Your task to perform on an android device: Go to Amazon Image 0: 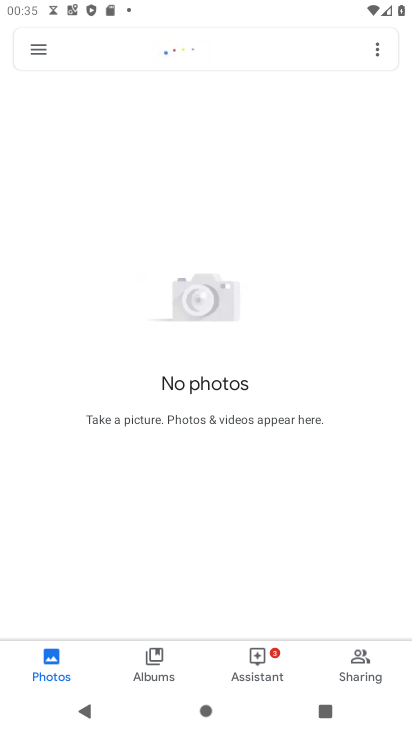
Step 0: press home button
Your task to perform on an android device: Go to Amazon Image 1: 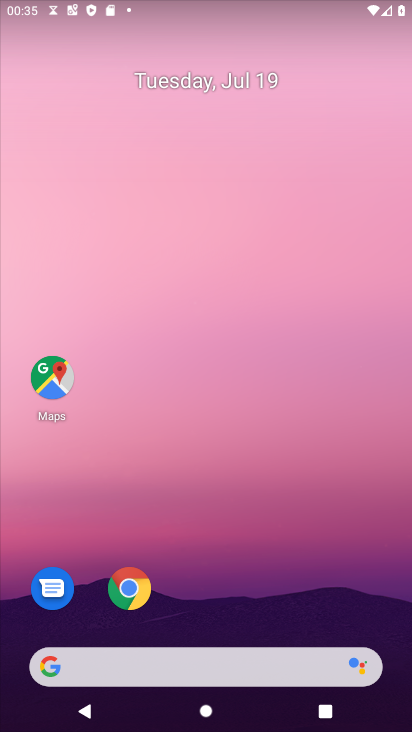
Step 1: click (120, 594)
Your task to perform on an android device: Go to Amazon Image 2: 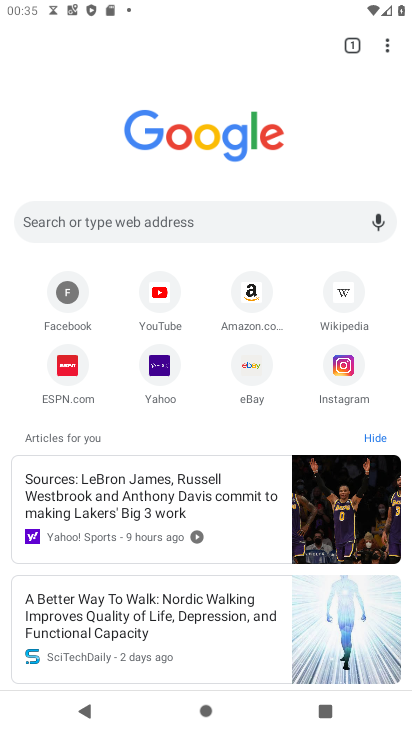
Step 2: click (261, 294)
Your task to perform on an android device: Go to Amazon Image 3: 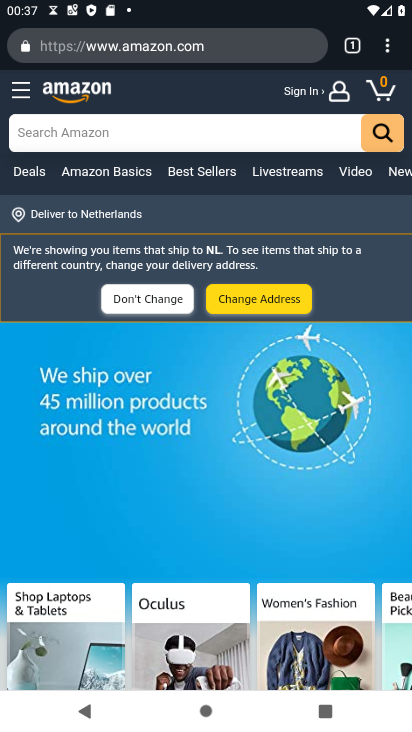
Step 3: task complete